Your task to perform on an android device: Open sound settings Image 0: 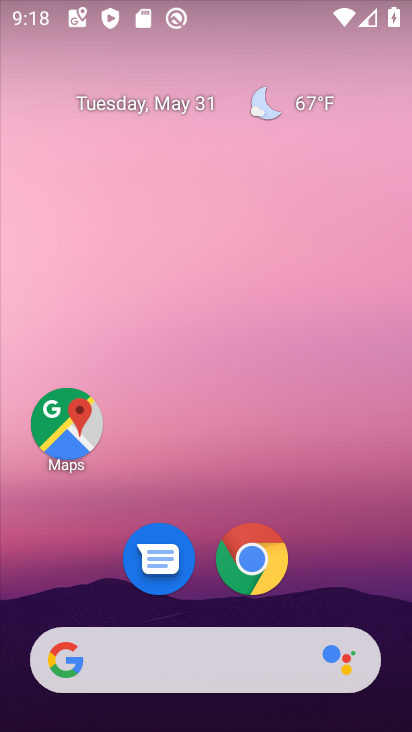
Step 0: drag from (335, 600) to (298, 58)
Your task to perform on an android device: Open sound settings Image 1: 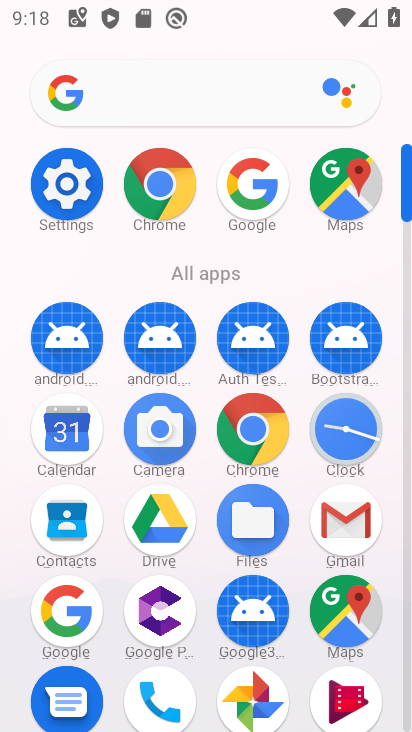
Step 1: click (69, 183)
Your task to perform on an android device: Open sound settings Image 2: 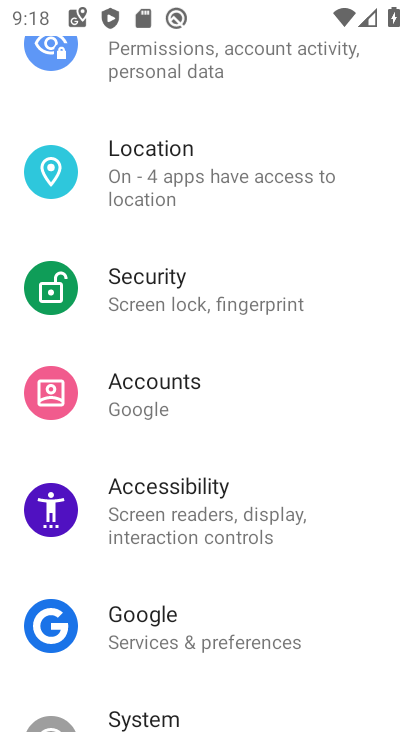
Step 2: drag from (184, 165) to (271, 638)
Your task to perform on an android device: Open sound settings Image 3: 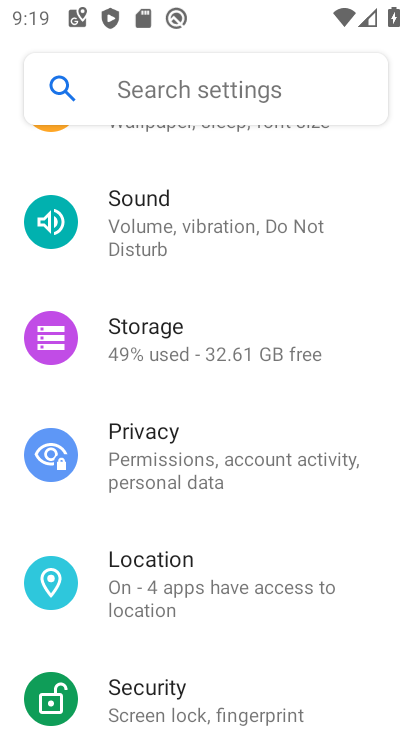
Step 3: click (199, 226)
Your task to perform on an android device: Open sound settings Image 4: 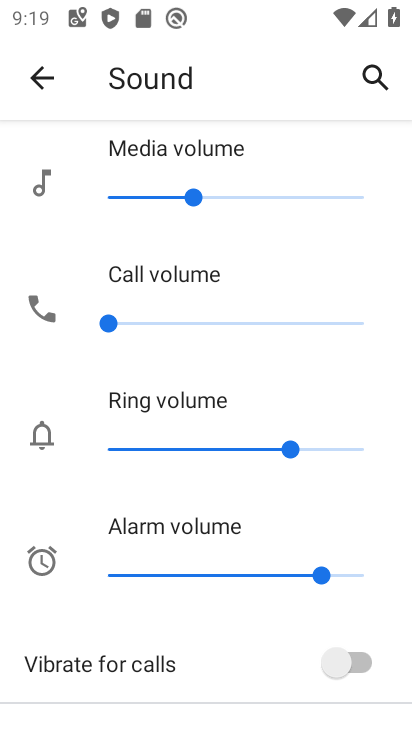
Step 4: task complete